Your task to perform on an android device: star an email in the gmail app Image 0: 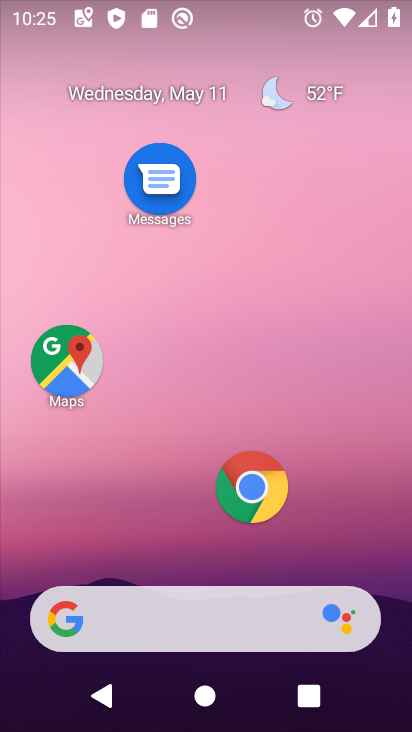
Step 0: drag from (199, 553) to (211, 198)
Your task to perform on an android device: star an email in the gmail app Image 1: 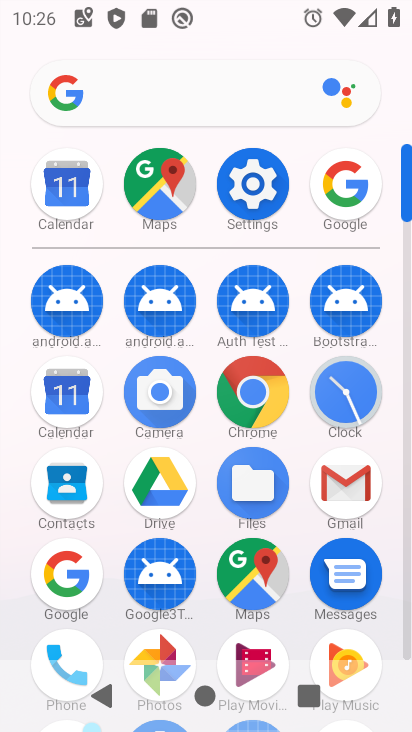
Step 1: click (354, 493)
Your task to perform on an android device: star an email in the gmail app Image 2: 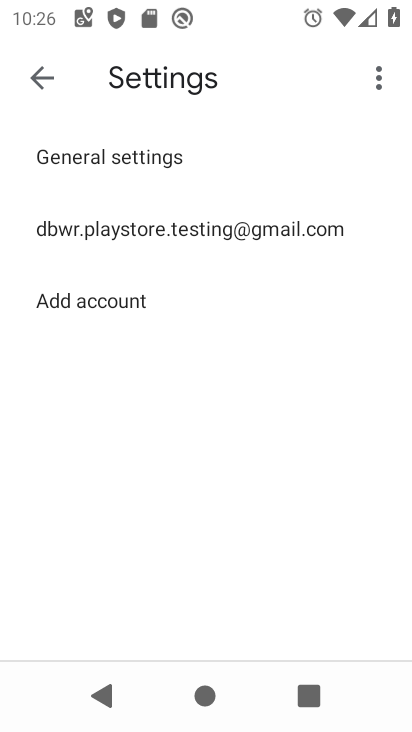
Step 2: click (38, 76)
Your task to perform on an android device: star an email in the gmail app Image 3: 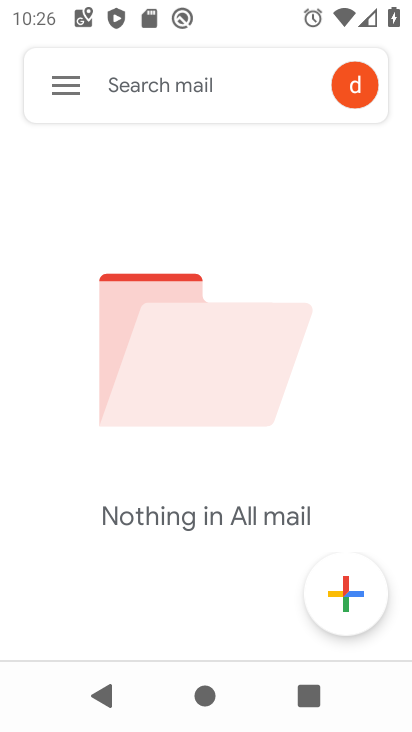
Step 3: click (61, 85)
Your task to perform on an android device: star an email in the gmail app Image 4: 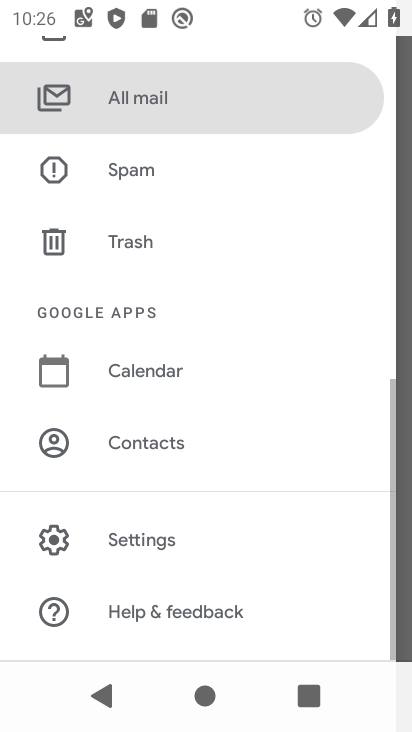
Step 4: click (140, 106)
Your task to perform on an android device: star an email in the gmail app Image 5: 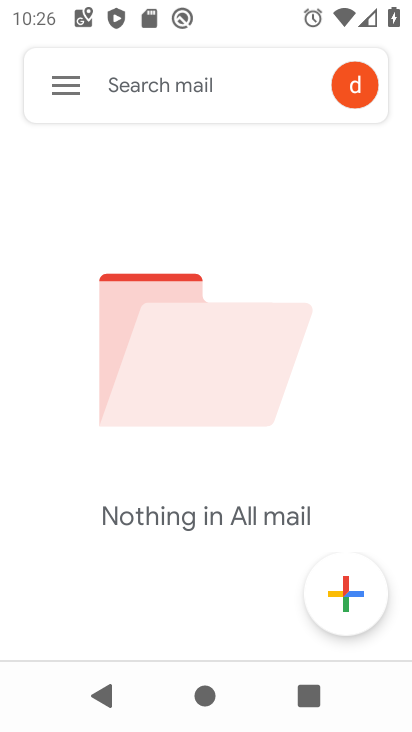
Step 5: task complete